Your task to perform on an android device: visit the assistant section in the google photos Image 0: 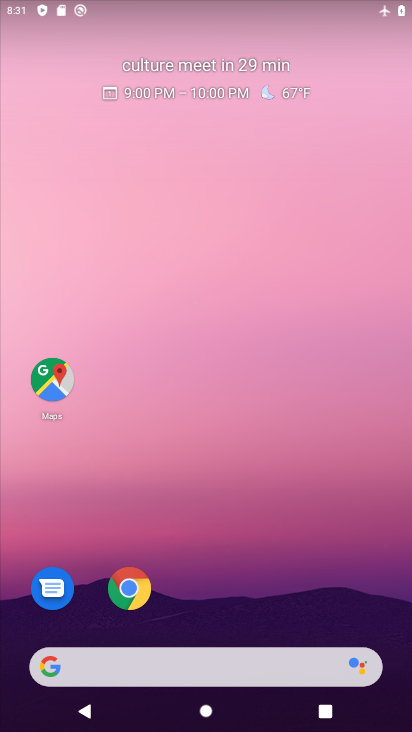
Step 0: drag from (294, 308) to (233, 23)
Your task to perform on an android device: visit the assistant section in the google photos Image 1: 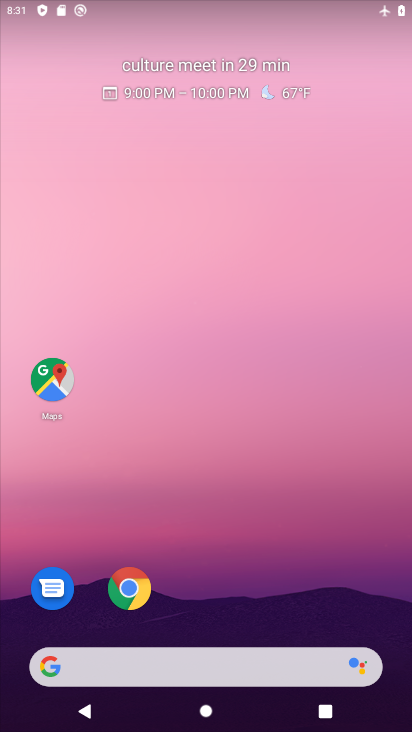
Step 1: drag from (263, 482) to (262, 7)
Your task to perform on an android device: visit the assistant section in the google photos Image 2: 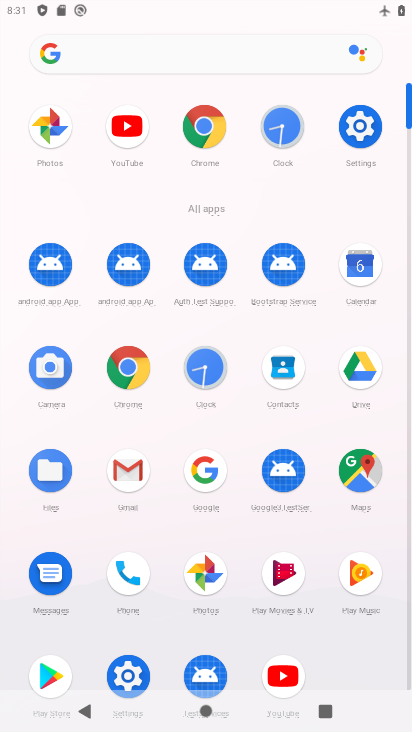
Step 2: click (195, 566)
Your task to perform on an android device: visit the assistant section in the google photos Image 3: 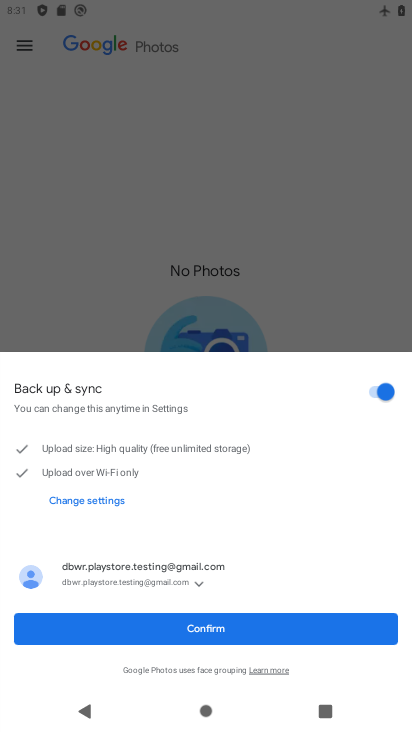
Step 3: click (221, 628)
Your task to perform on an android device: visit the assistant section in the google photos Image 4: 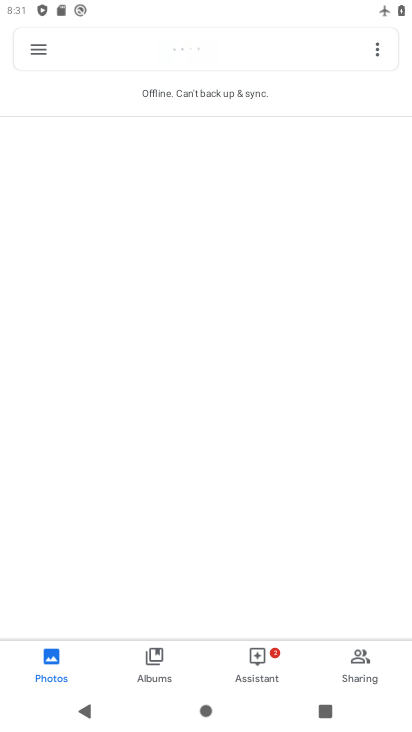
Step 4: click (259, 677)
Your task to perform on an android device: visit the assistant section in the google photos Image 5: 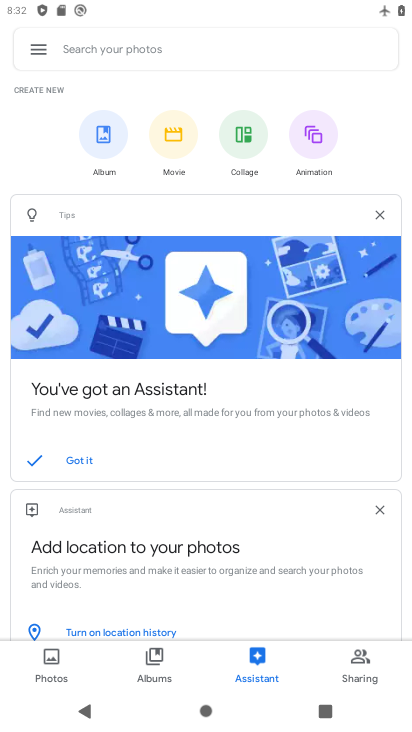
Step 5: task complete